Your task to perform on an android device: turn off javascript in the chrome app Image 0: 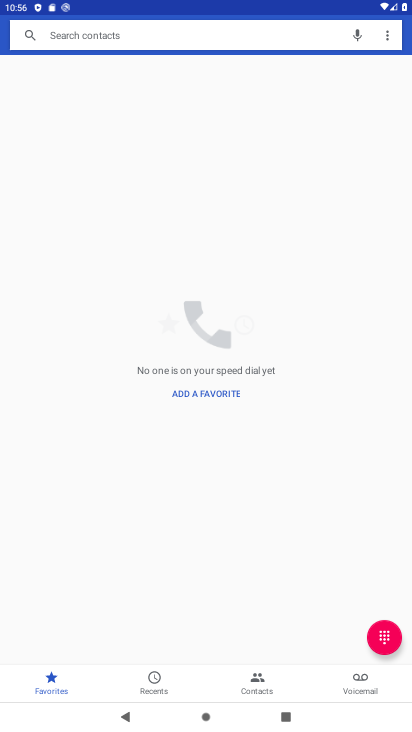
Step 0: press home button
Your task to perform on an android device: turn off javascript in the chrome app Image 1: 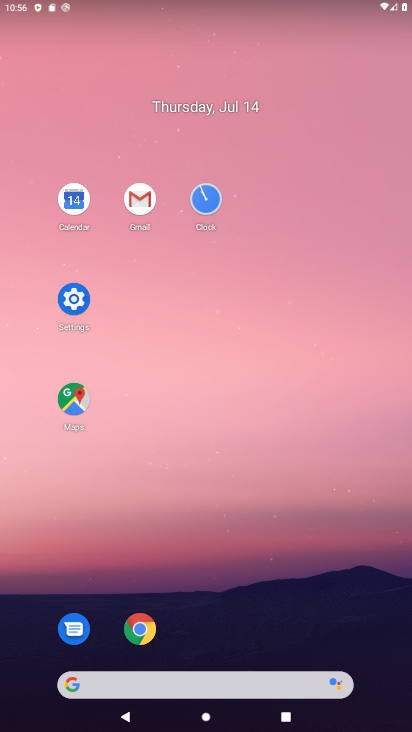
Step 1: click (133, 630)
Your task to perform on an android device: turn off javascript in the chrome app Image 2: 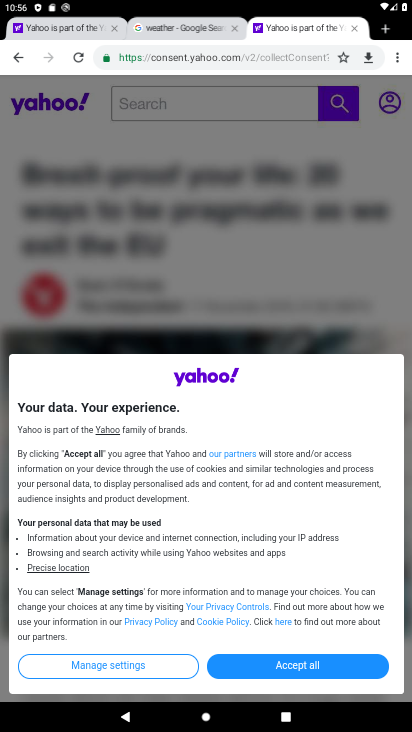
Step 2: click (398, 58)
Your task to perform on an android device: turn off javascript in the chrome app Image 3: 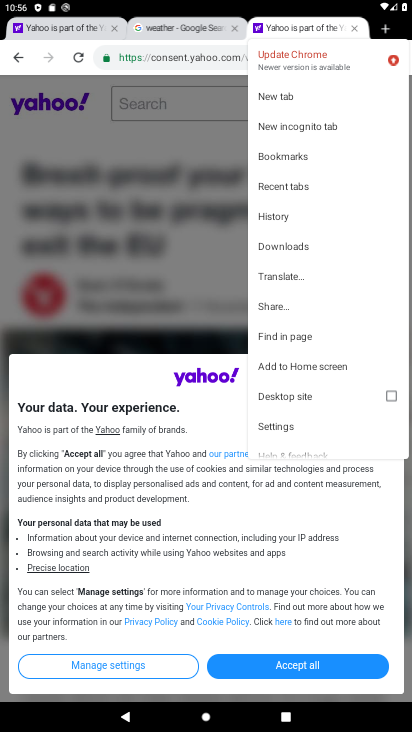
Step 3: click (275, 427)
Your task to perform on an android device: turn off javascript in the chrome app Image 4: 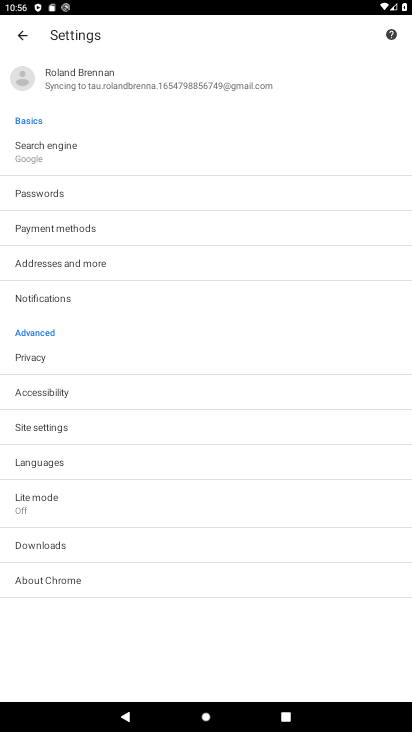
Step 4: click (106, 434)
Your task to perform on an android device: turn off javascript in the chrome app Image 5: 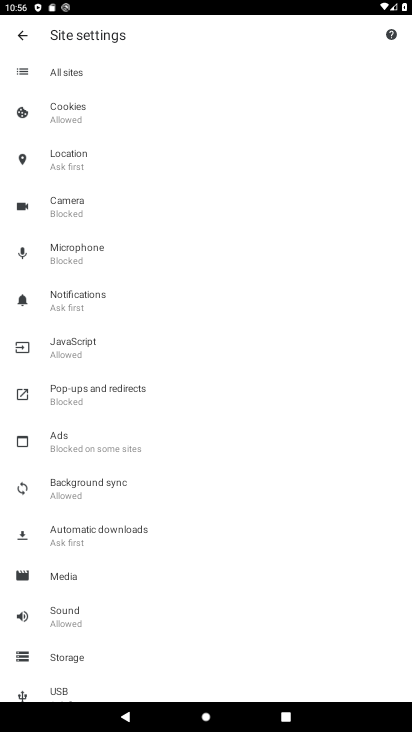
Step 5: click (152, 352)
Your task to perform on an android device: turn off javascript in the chrome app Image 6: 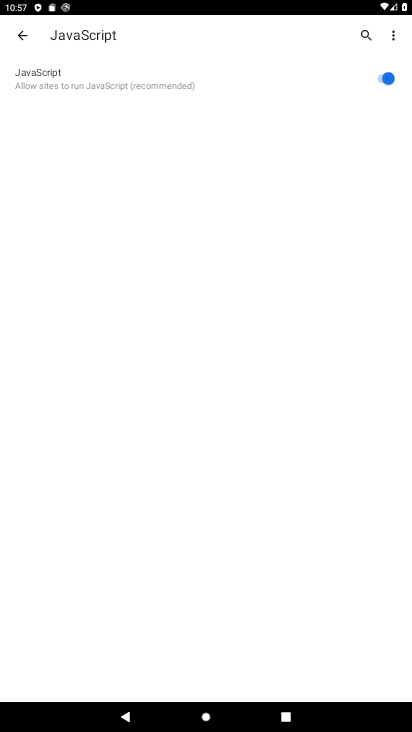
Step 6: click (365, 70)
Your task to perform on an android device: turn off javascript in the chrome app Image 7: 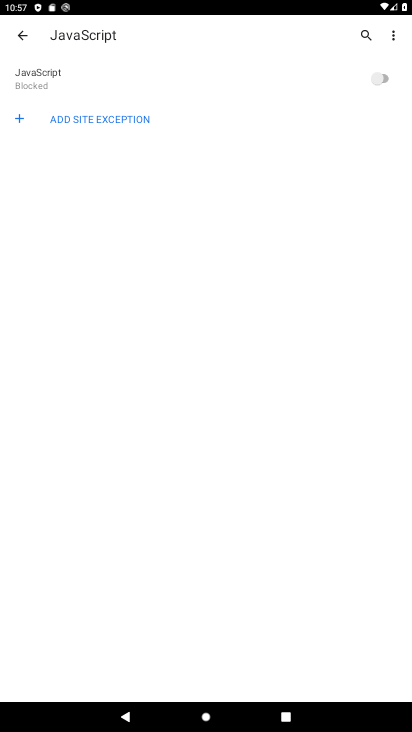
Step 7: task complete